Your task to perform on an android device: Go to network settings Image 0: 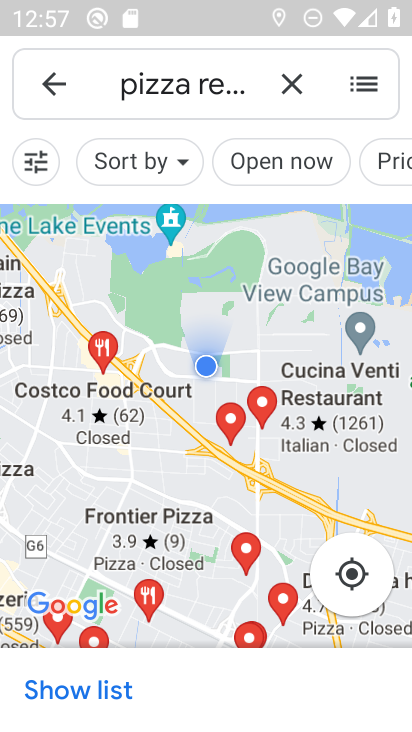
Step 0: press home button
Your task to perform on an android device: Go to network settings Image 1: 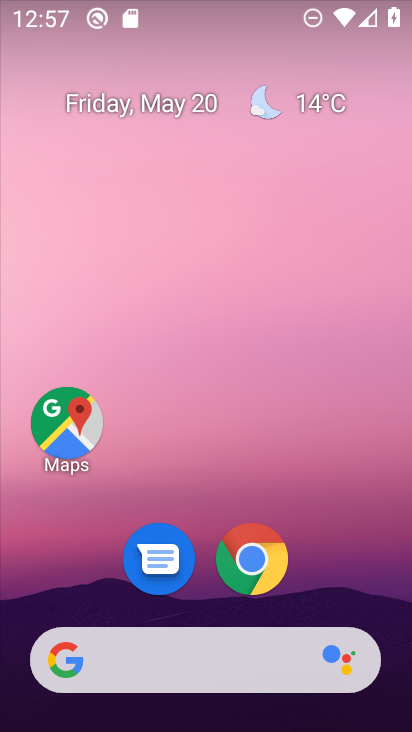
Step 1: drag from (353, 533) to (294, 257)
Your task to perform on an android device: Go to network settings Image 2: 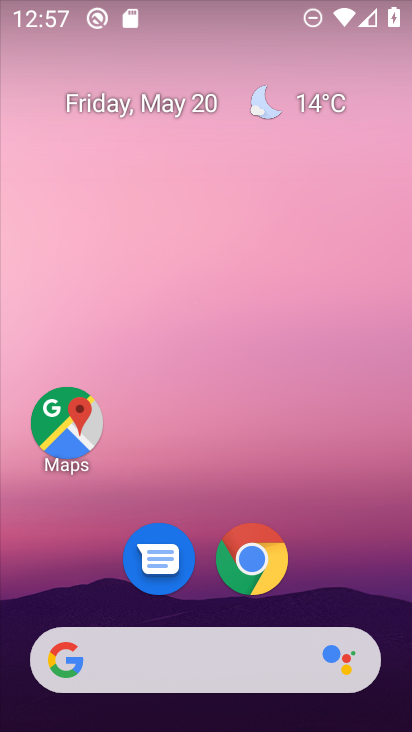
Step 2: drag from (343, 583) to (299, 68)
Your task to perform on an android device: Go to network settings Image 3: 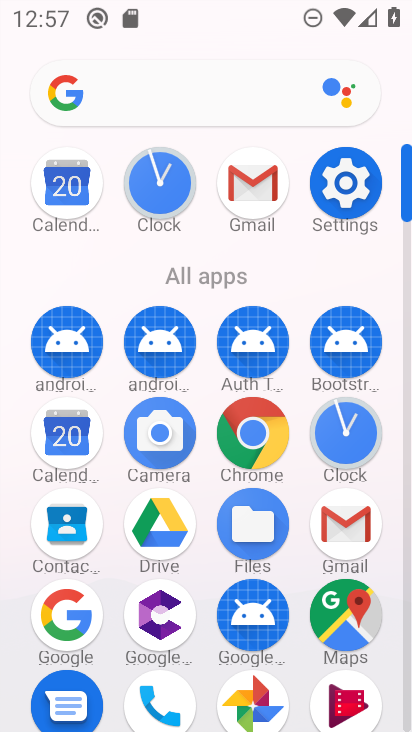
Step 3: click (325, 228)
Your task to perform on an android device: Go to network settings Image 4: 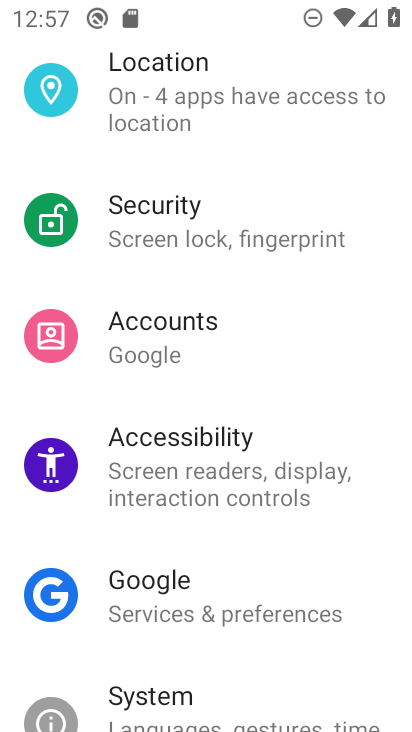
Step 4: drag from (252, 234) to (215, 525)
Your task to perform on an android device: Go to network settings Image 5: 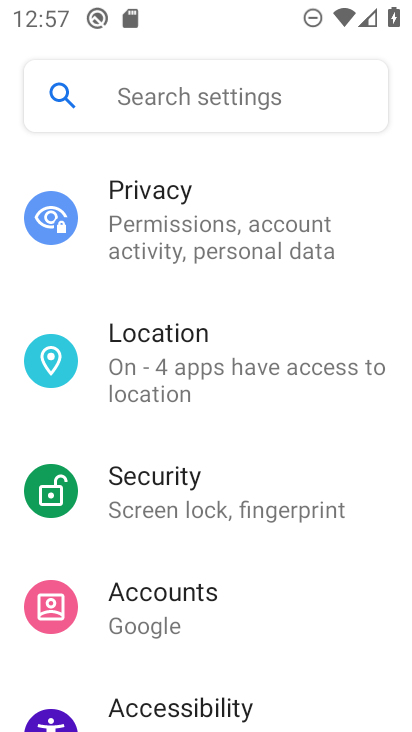
Step 5: drag from (207, 223) to (176, 437)
Your task to perform on an android device: Go to network settings Image 6: 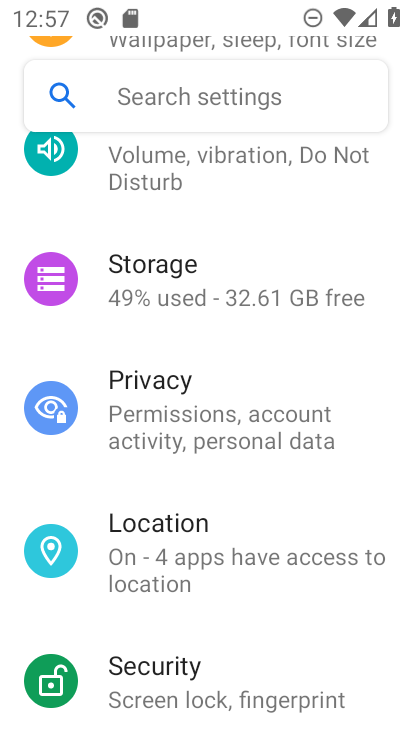
Step 6: drag from (177, 175) to (163, 481)
Your task to perform on an android device: Go to network settings Image 7: 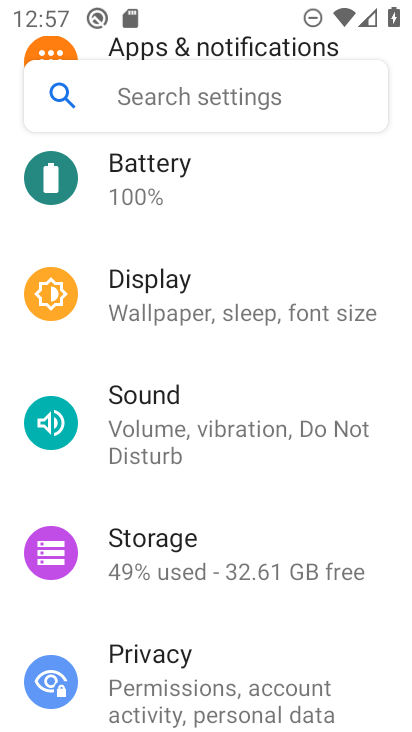
Step 7: drag from (186, 156) to (183, 501)
Your task to perform on an android device: Go to network settings Image 8: 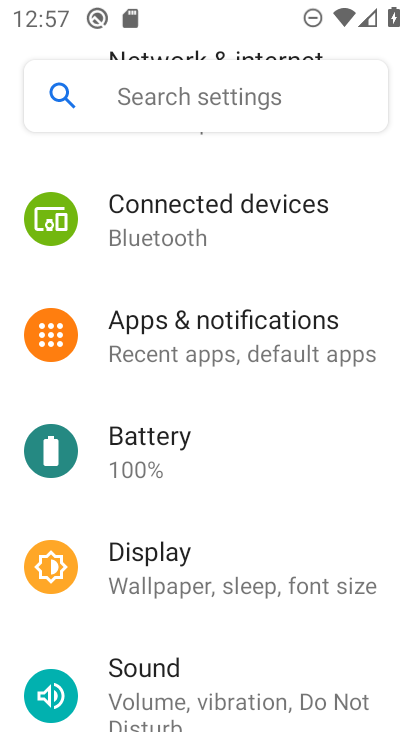
Step 8: drag from (184, 295) to (179, 559)
Your task to perform on an android device: Go to network settings Image 9: 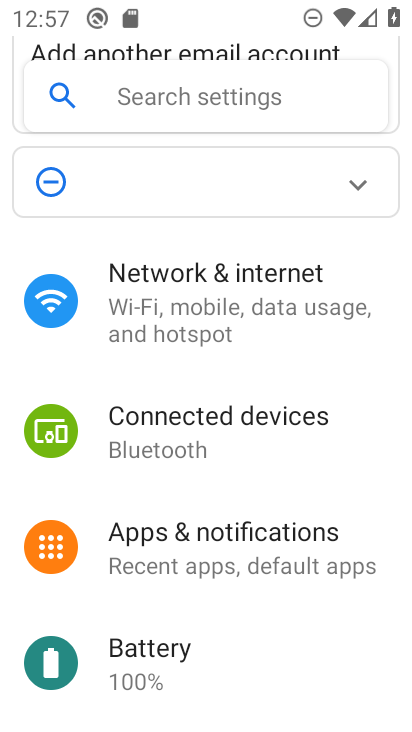
Step 9: click (179, 281)
Your task to perform on an android device: Go to network settings Image 10: 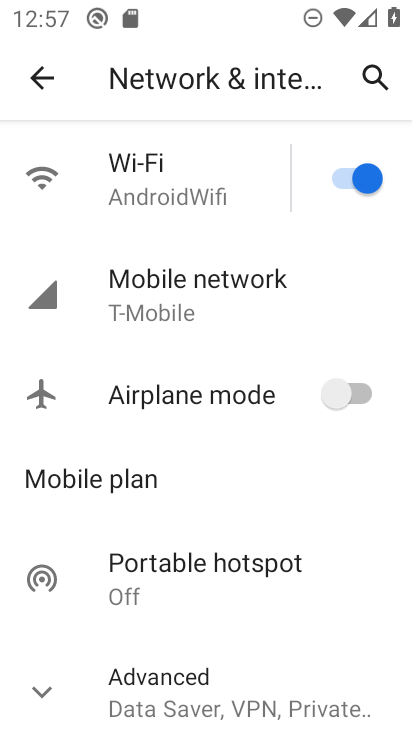
Step 10: task complete